Your task to perform on an android device: change notifications settings Image 0: 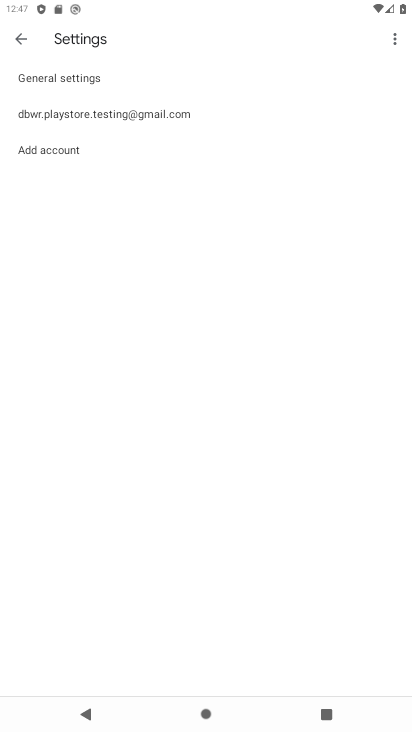
Step 0: press home button
Your task to perform on an android device: change notifications settings Image 1: 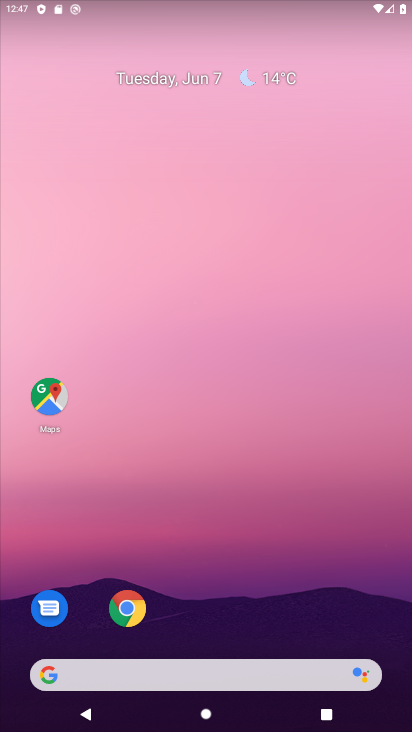
Step 1: drag from (231, 543) to (261, 137)
Your task to perform on an android device: change notifications settings Image 2: 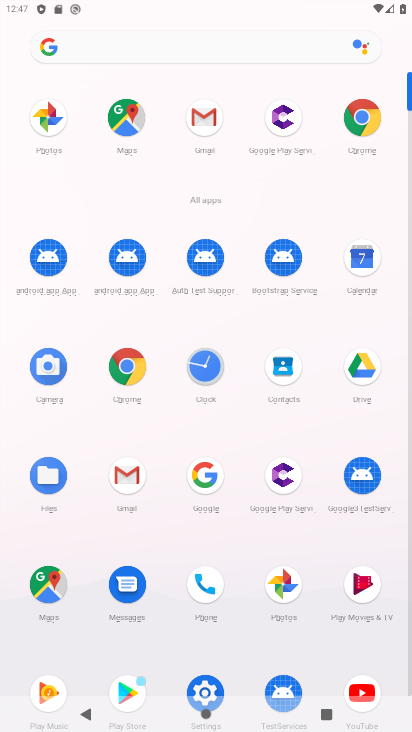
Step 2: click (202, 686)
Your task to perform on an android device: change notifications settings Image 3: 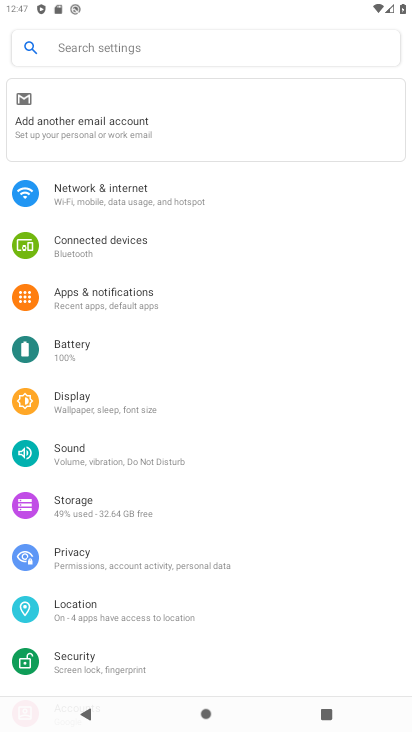
Step 3: click (118, 302)
Your task to perform on an android device: change notifications settings Image 4: 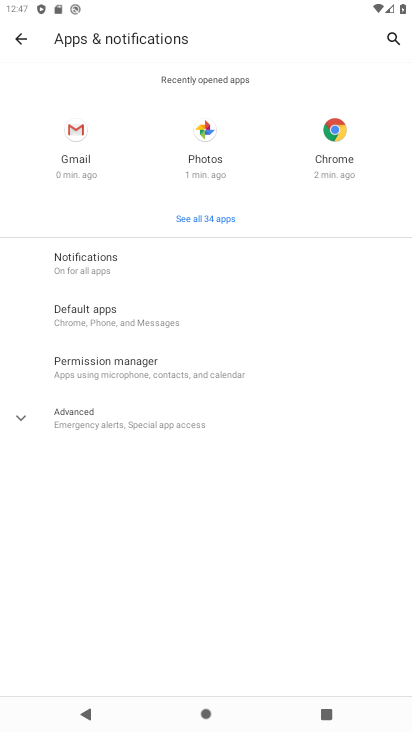
Step 4: click (85, 259)
Your task to perform on an android device: change notifications settings Image 5: 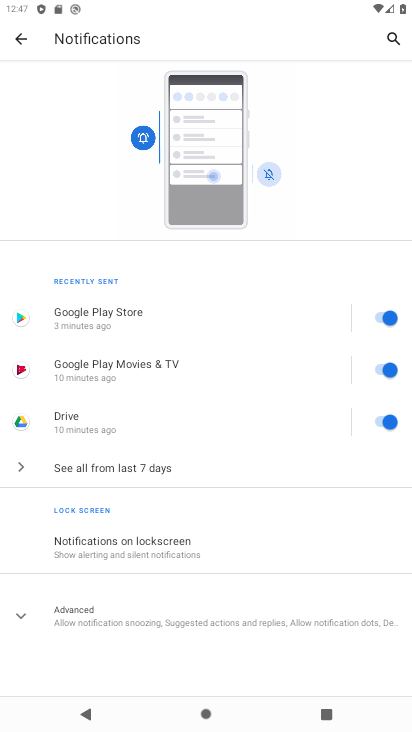
Step 5: drag from (196, 664) to (198, 415)
Your task to perform on an android device: change notifications settings Image 6: 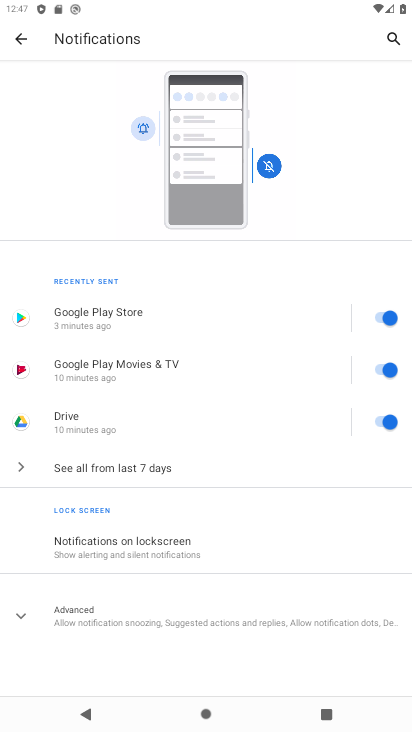
Step 6: click (274, 166)
Your task to perform on an android device: change notifications settings Image 7: 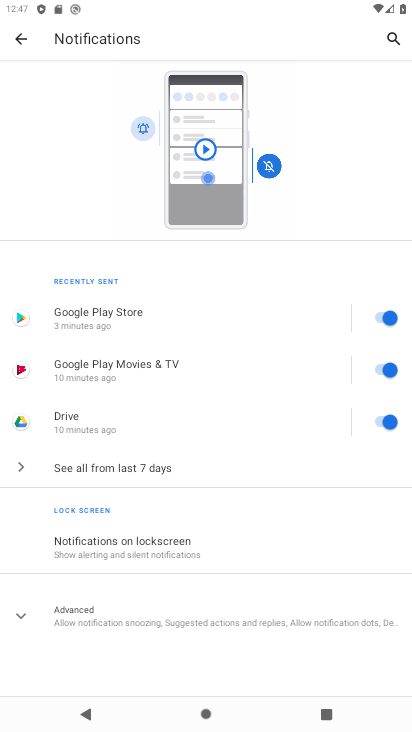
Step 7: click (144, 122)
Your task to perform on an android device: change notifications settings Image 8: 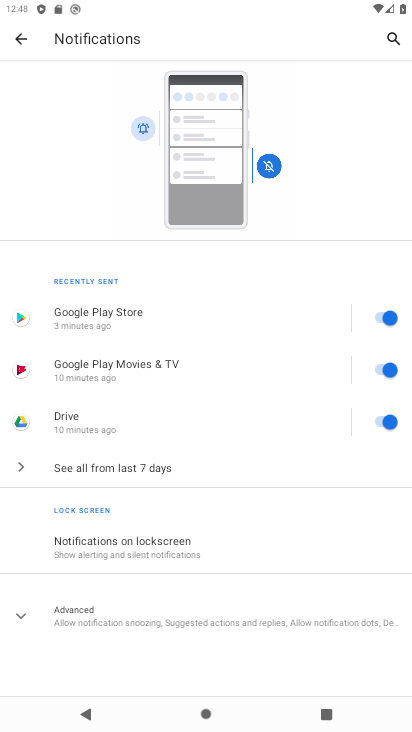
Step 8: task complete